Your task to perform on an android device: Show the shopping cart on ebay.com. Search for "usb-c to usb-a" on ebay.com, select the first entry, and add it to the cart. Image 0: 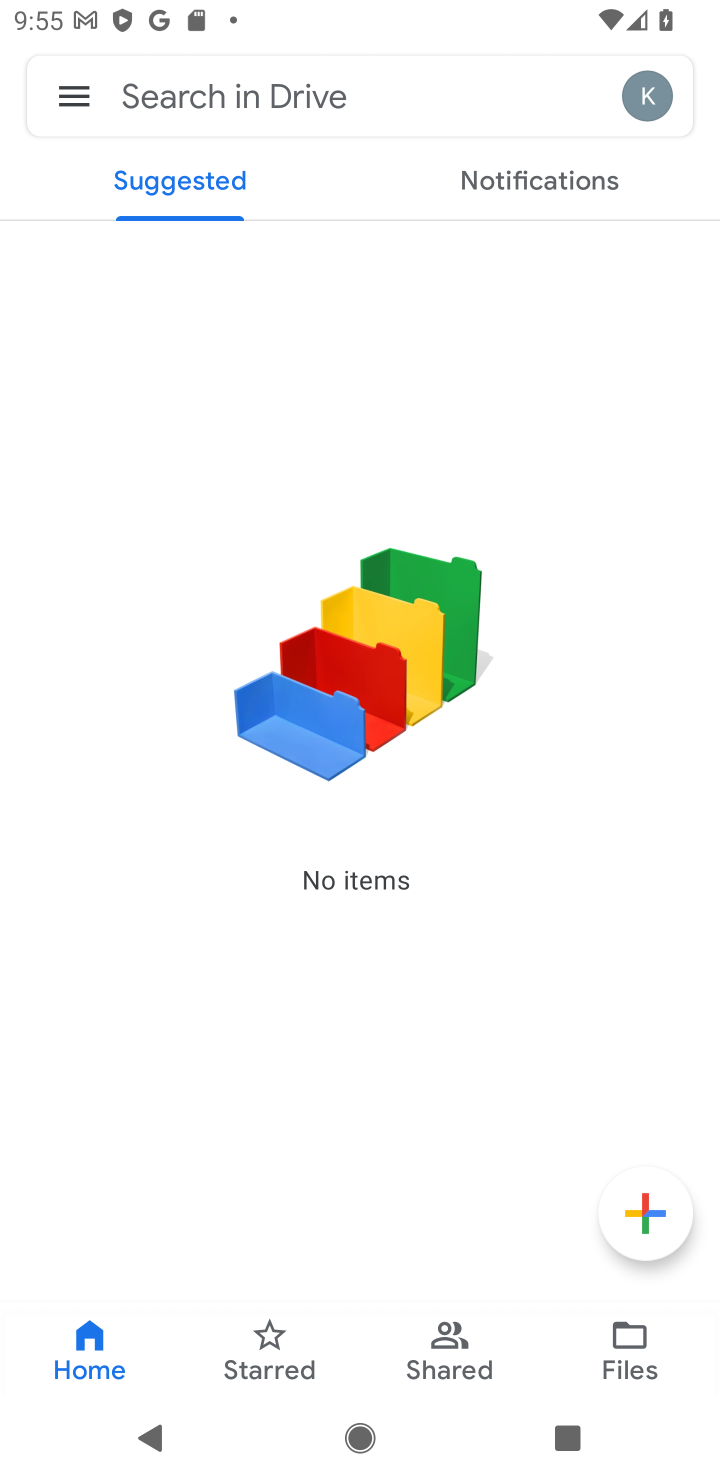
Step 0: press home button
Your task to perform on an android device: Show the shopping cart on ebay.com. Search for "usb-c to usb-a" on ebay.com, select the first entry, and add it to the cart. Image 1: 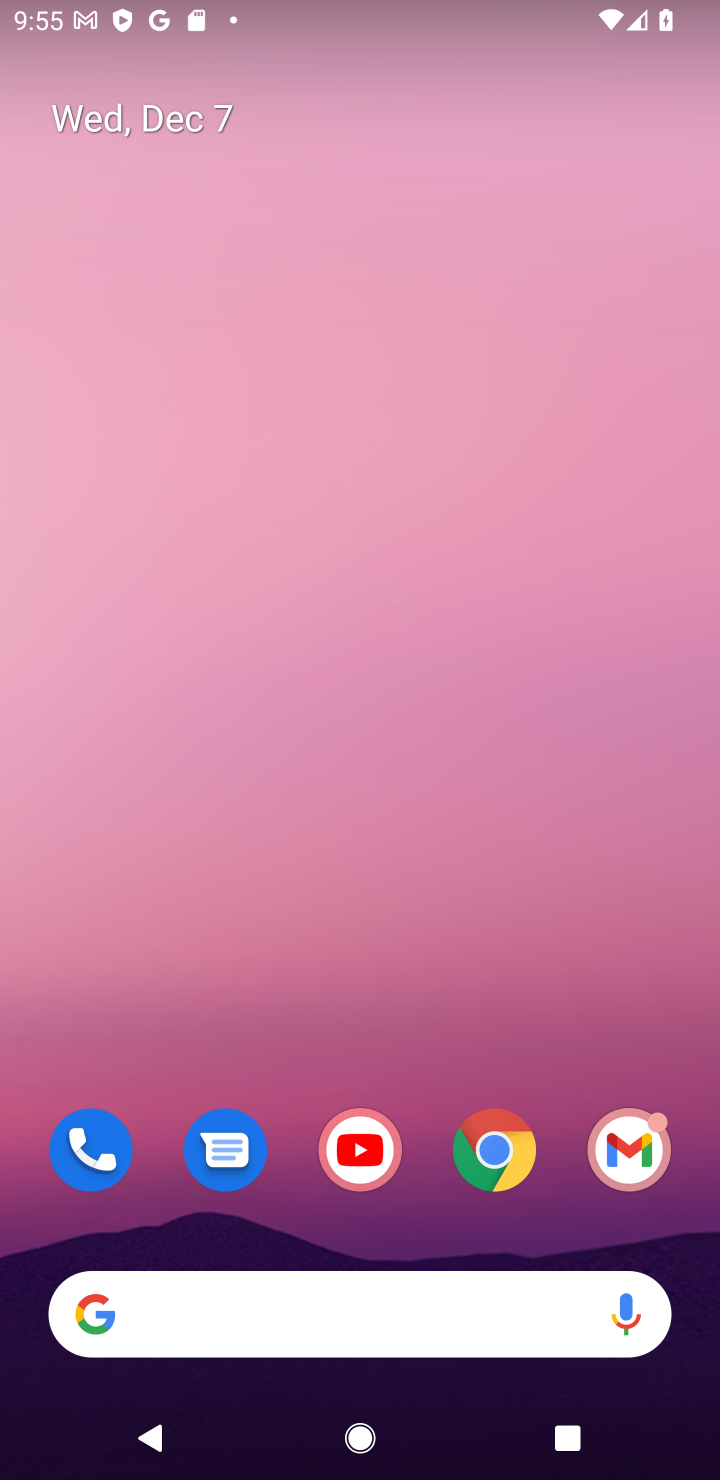
Step 1: click (519, 1140)
Your task to perform on an android device: Show the shopping cart on ebay.com. Search for "usb-c to usb-a" on ebay.com, select the first entry, and add it to the cart. Image 2: 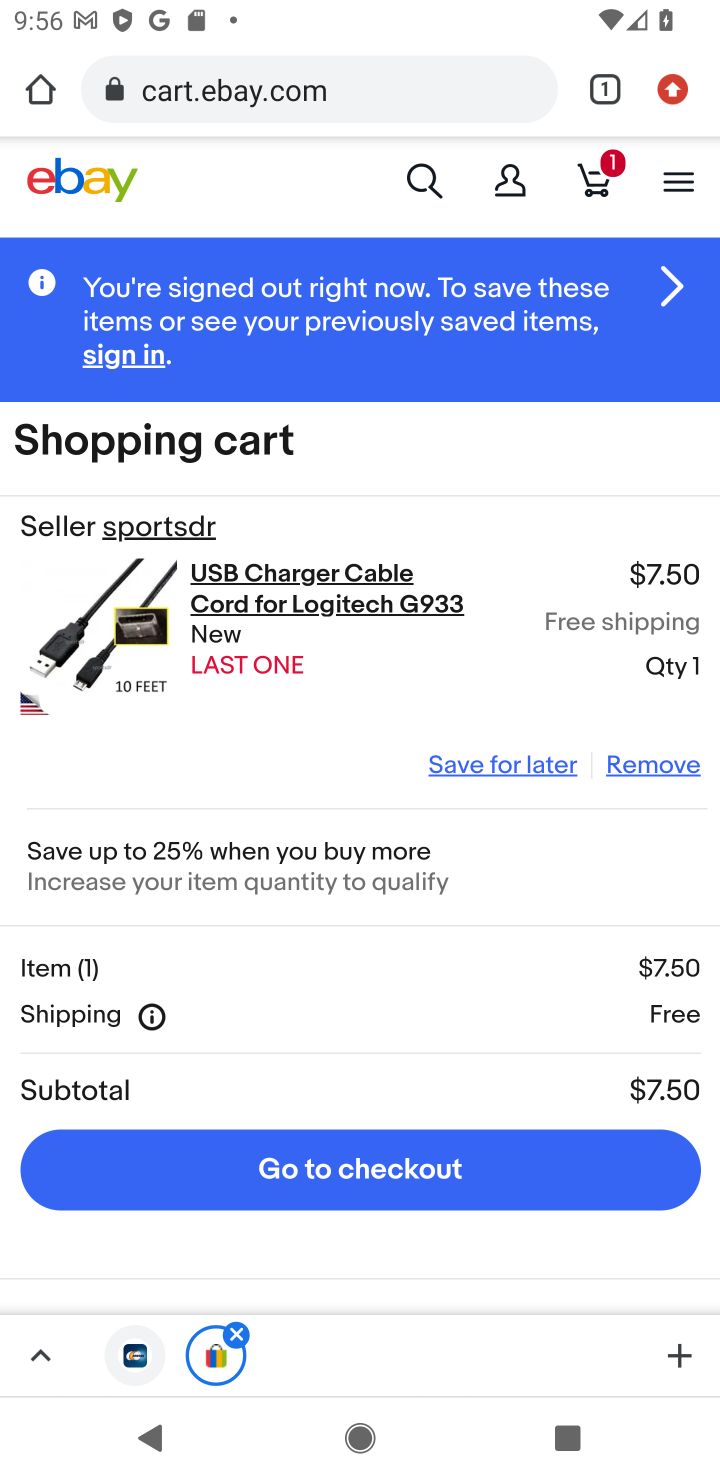
Step 2: click (593, 176)
Your task to perform on an android device: Show the shopping cart on ebay.com. Search for "usb-c to usb-a" on ebay.com, select the first entry, and add it to the cart. Image 3: 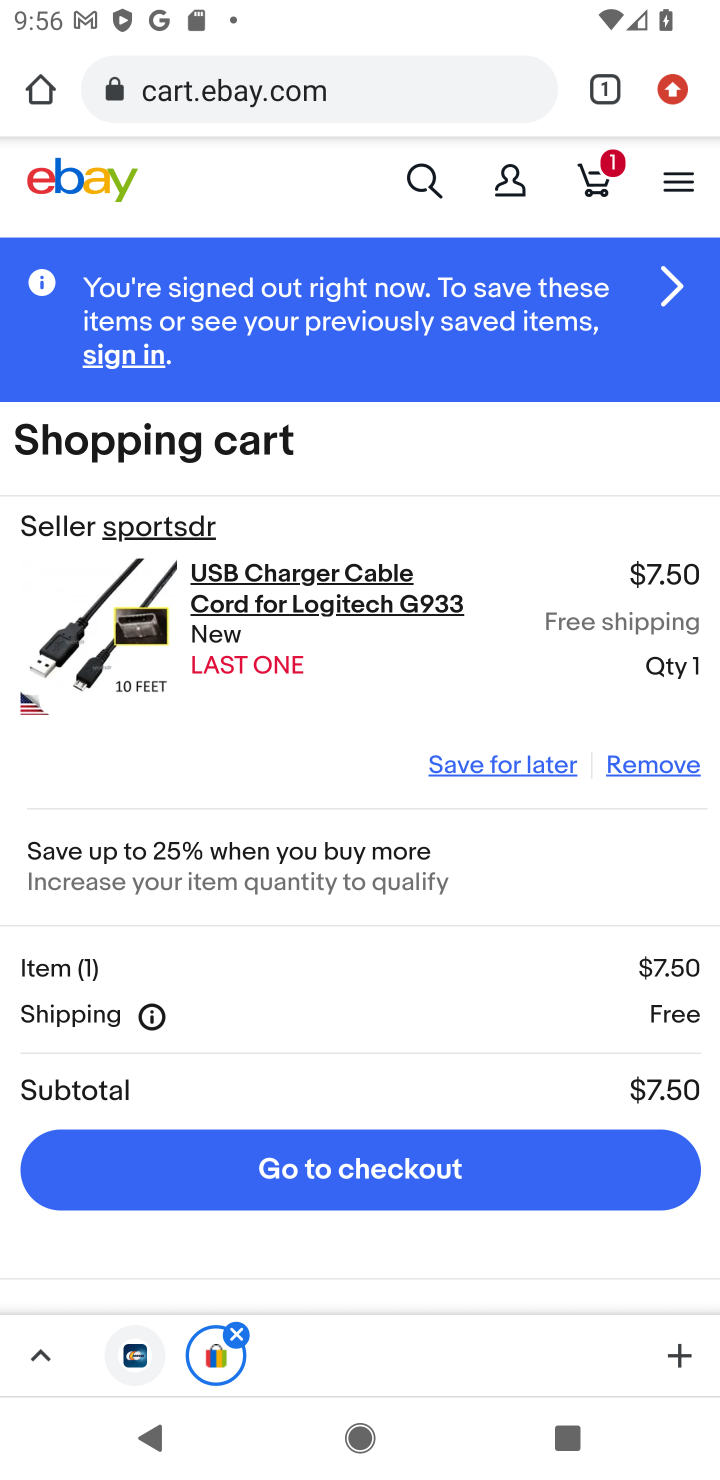
Step 3: click (423, 158)
Your task to perform on an android device: Show the shopping cart on ebay.com. Search for "usb-c to usb-a" on ebay.com, select the first entry, and add it to the cart. Image 4: 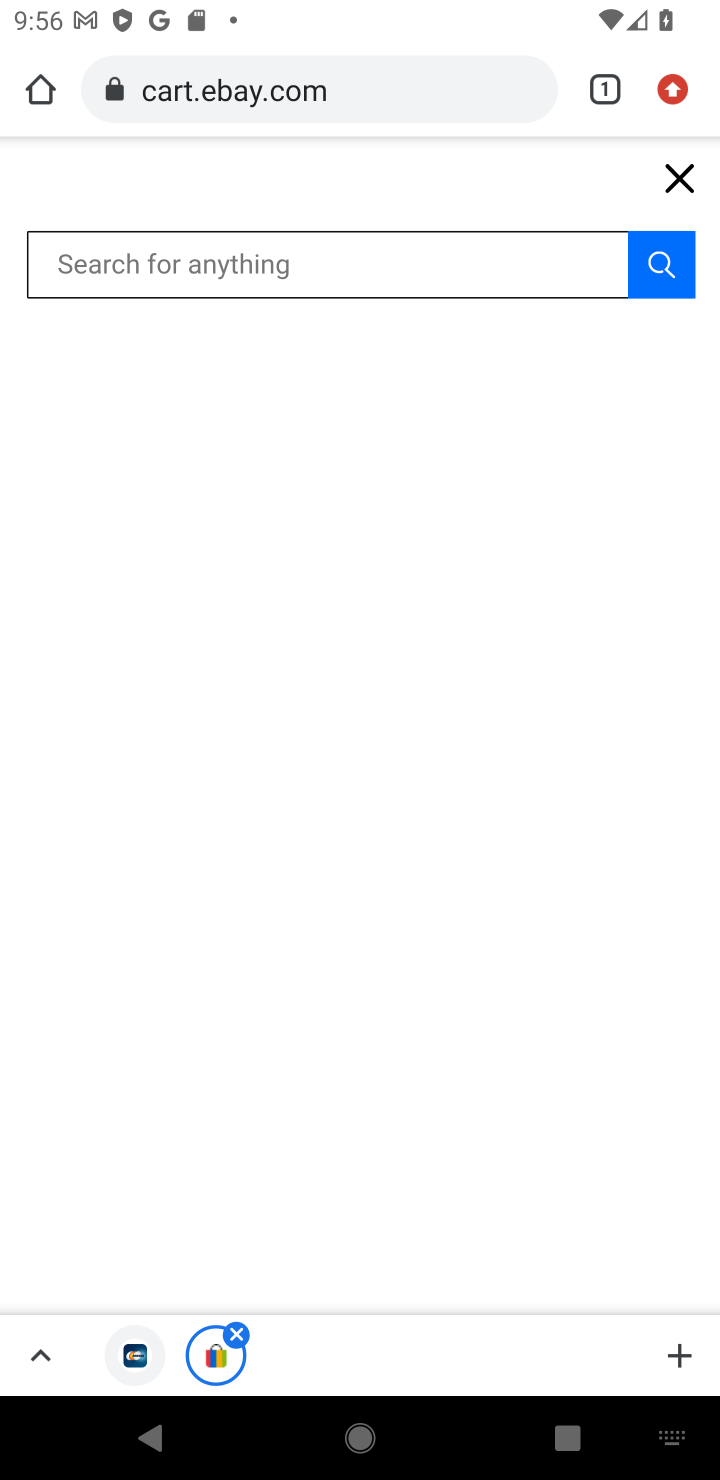
Step 4: type "usb-c to usb-a"
Your task to perform on an android device: Show the shopping cart on ebay.com. Search for "usb-c to usb-a" on ebay.com, select the first entry, and add it to the cart. Image 5: 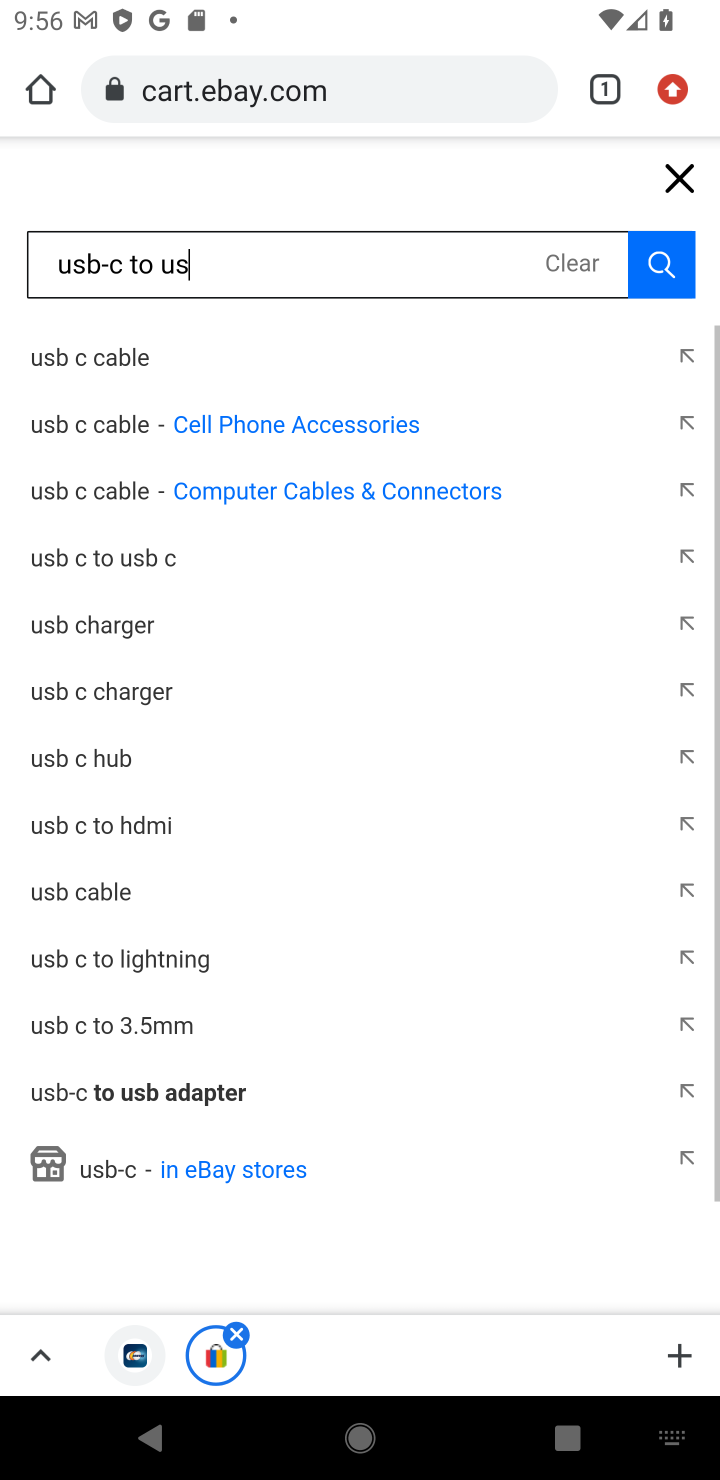
Step 5: press enter
Your task to perform on an android device: Show the shopping cart on ebay.com. Search for "usb-c to usb-a" on ebay.com, select the first entry, and add it to the cart. Image 6: 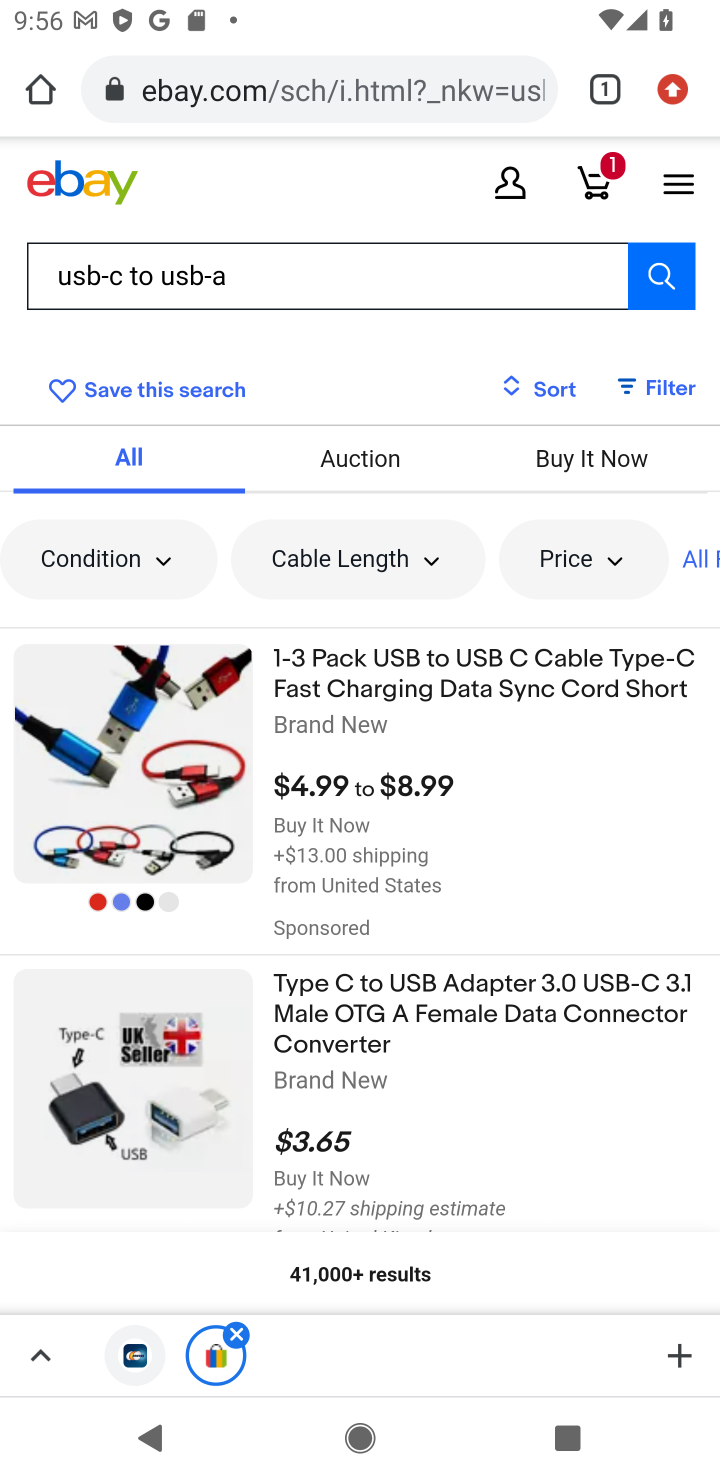
Step 6: task complete